Your task to perform on an android device: Search for vegetarian restaurants on Maps Image 0: 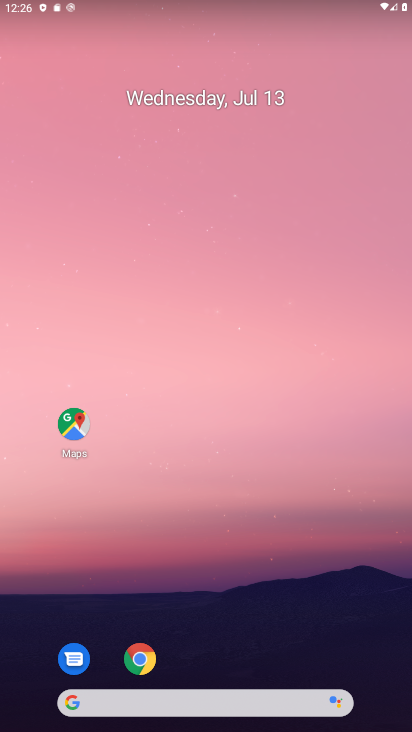
Step 0: drag from (192, 703) to (248, 143)
Your task to perform on an android device: Search for vegetarian restaurants on Maps Image 1: 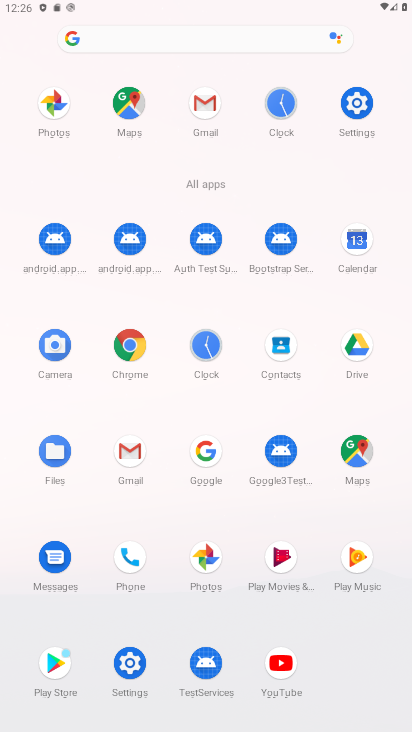
Step 1: click (357, 445)
Your task to perform on an android device: Search for vegetarian restaurants on Maps Image 2: 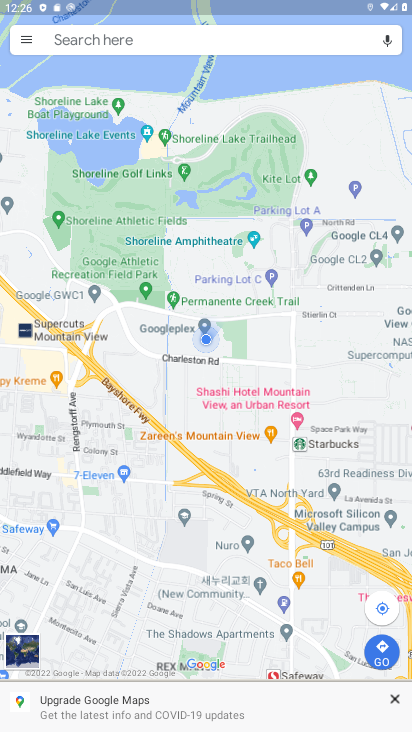
Step 2: click (161, 43)
Your task to perform on an android device: Search for vegetarian restaurants on Maps Image 3: 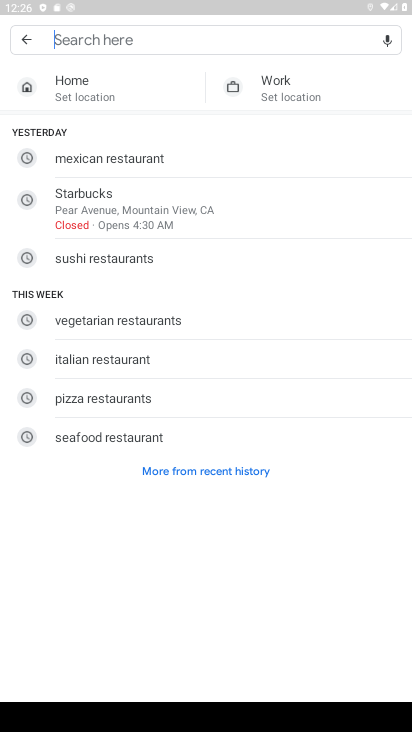
Step 3: type "vegetarian restaurants"
Your task to perform on an android device: Search for vegetarian restaurants on Maps Image 4: 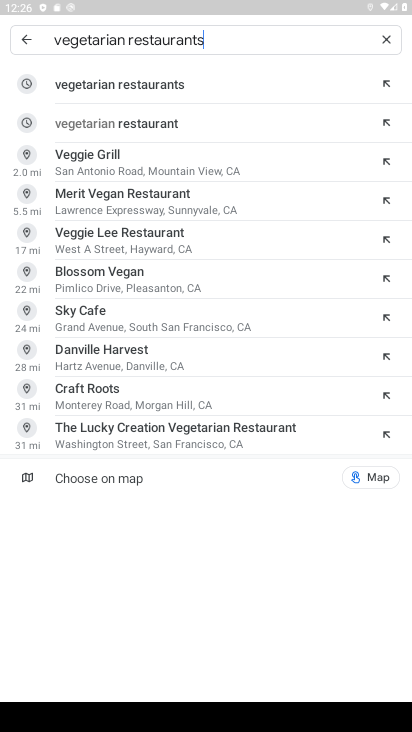
Step 4: click (135, 79)
Your task to perform on an android device: Search for vegetarian restaurants on Maps Image 5: 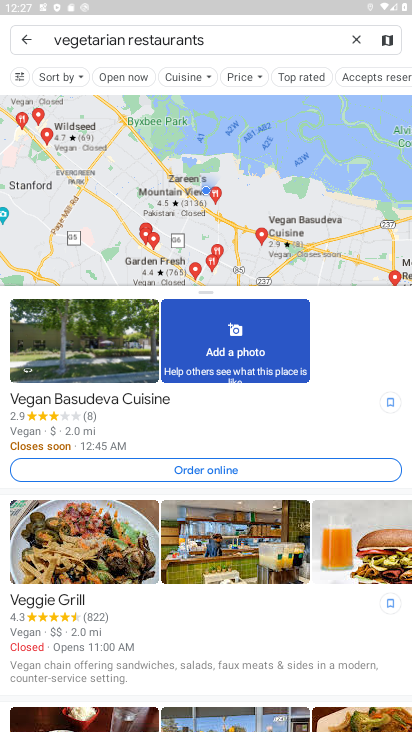
Step 5: task complete